Your task to perform on an android device: Play the last video I watched on Youtube Image 0: 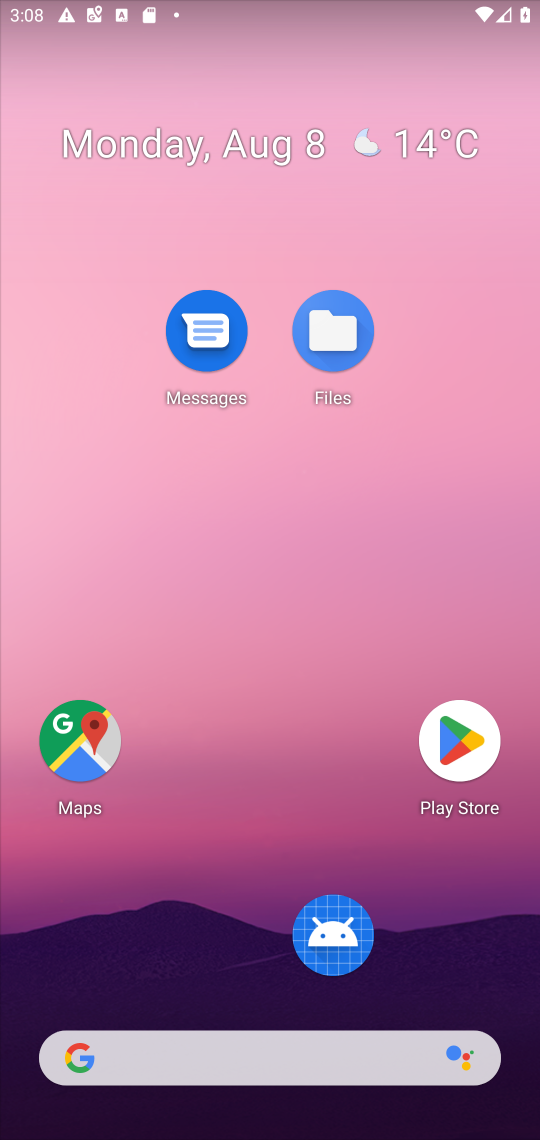
Step 0: drag from (239, 1061) to (401, 56)
Your task to perform on an android device: Play the last video I watched on Youtube Image 1: 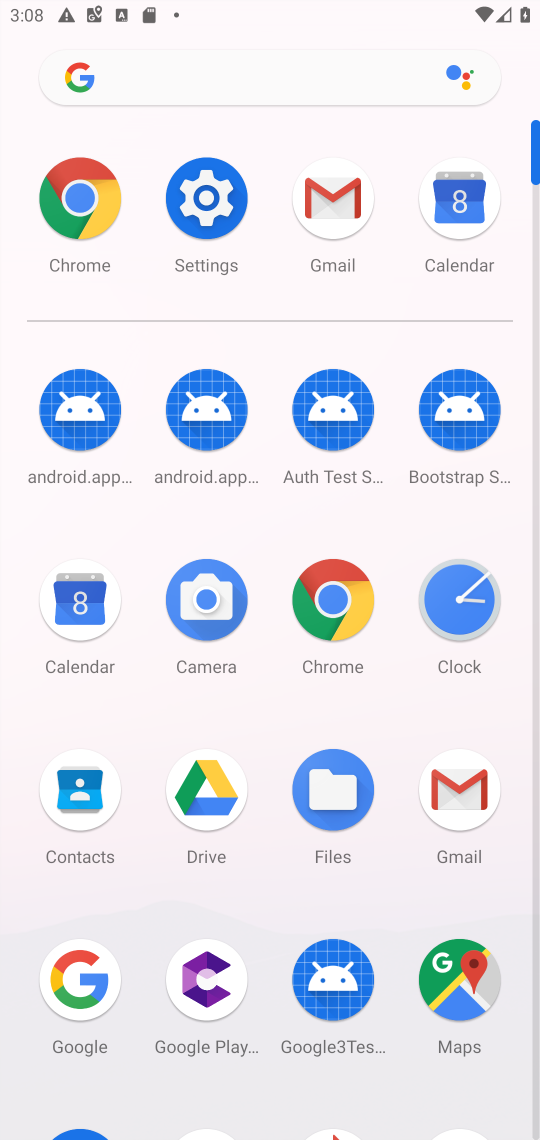
Step 1: drag from (384, 893) to (405, 217)
Your task to perform on an android device: Play the last video I watched on Youtube Image 2: 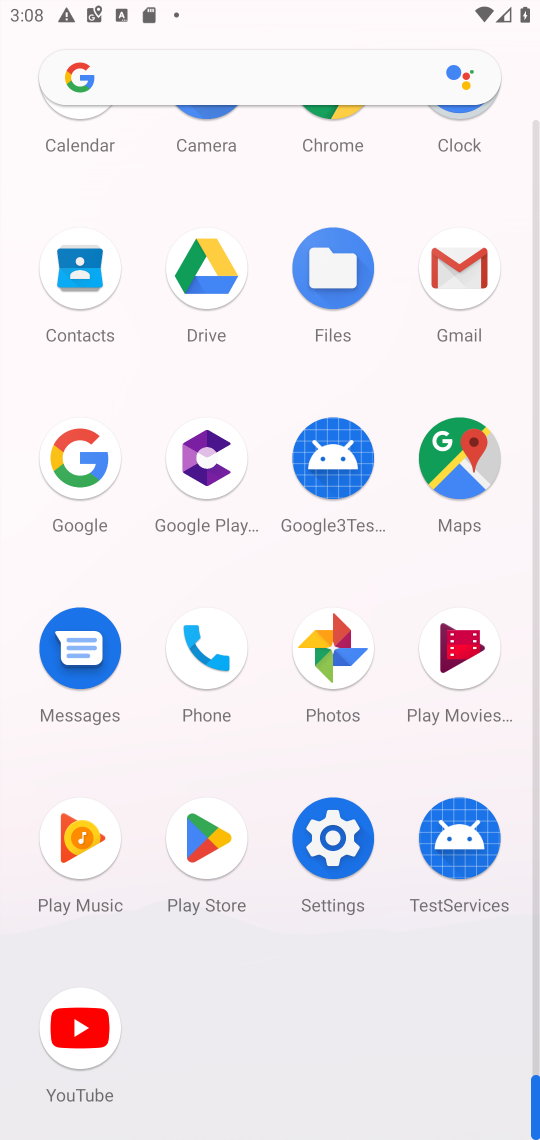
Step 2: click (88, 1030)
Your task to perform on an android device: Play the last video I watched on Youtube Image 3: 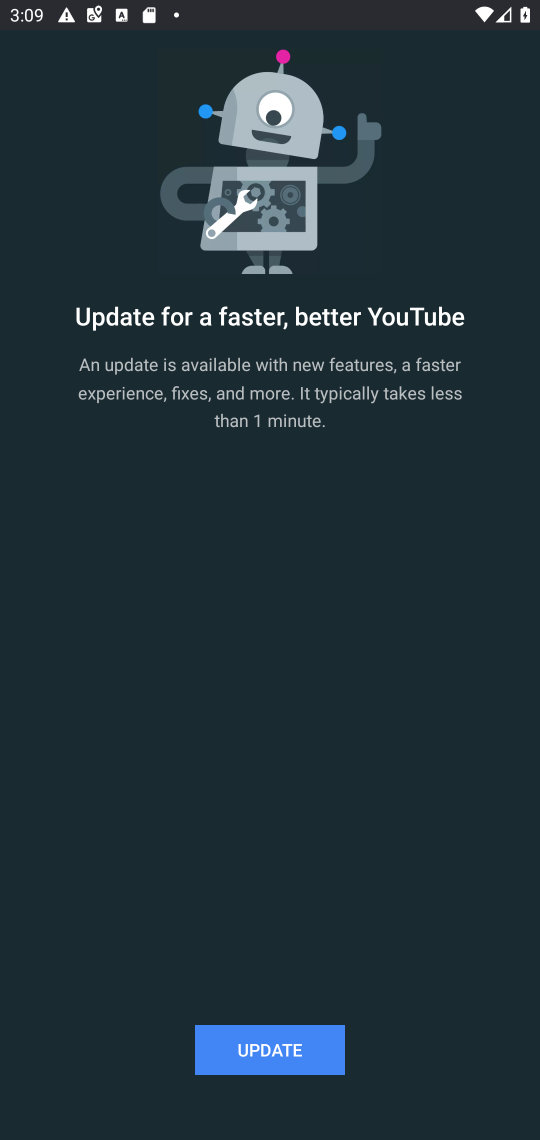
Step 3: click (314, 1057)
Your task to perform on an android device: Play the last video I watched on Youtube Image 4: 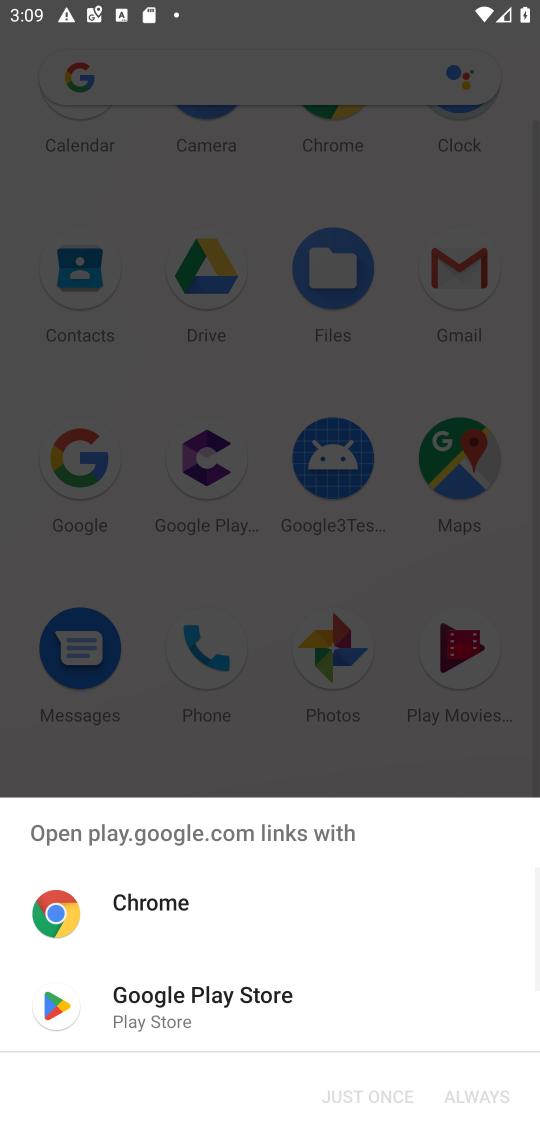
Step 4: click (166, 1009)
Your task to perform on an android device: Play the last video I watched on Youtube Image 5: 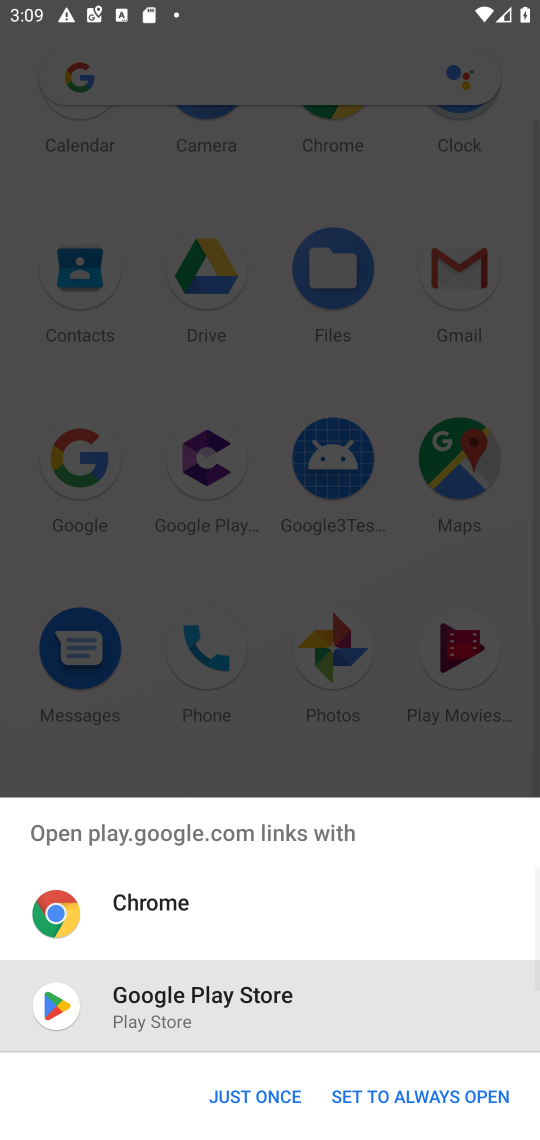
Step 5: click (286, 1100)
Your task to perform on an android device: Play the last video I watched on Youtube Image 6: 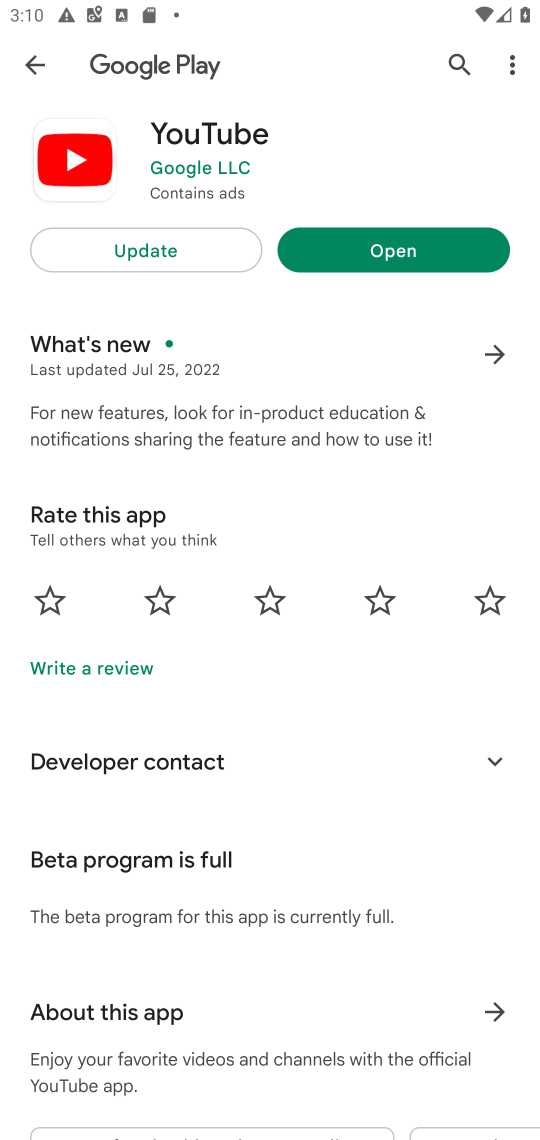
Step 6: click (165, 256)
Your task to perform on an android device: Play the last video I watched on Youtube Image 7: 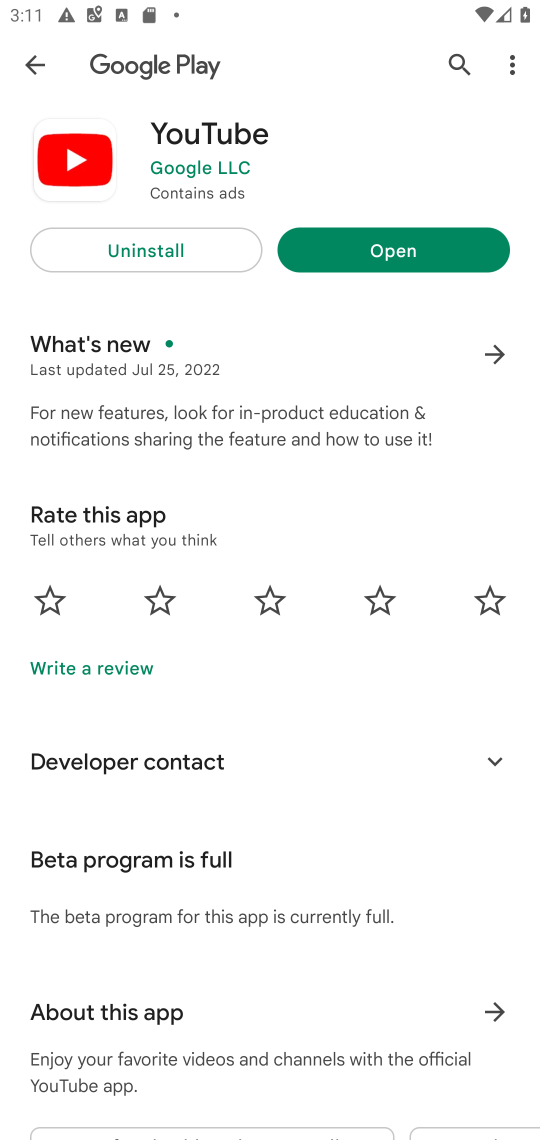
Step 7: click (323, 242)
Your task to perform on an android device: Play the last video I watched on Youtube Image 8: 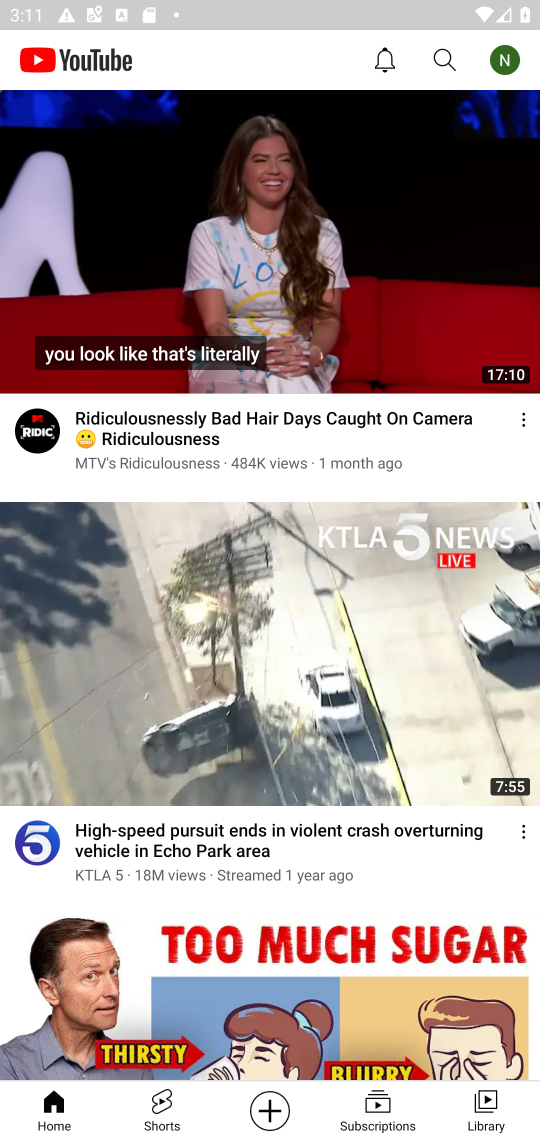
Step 8: task complete